Your task to perform on an android device: turn on sleep mode Image 0: 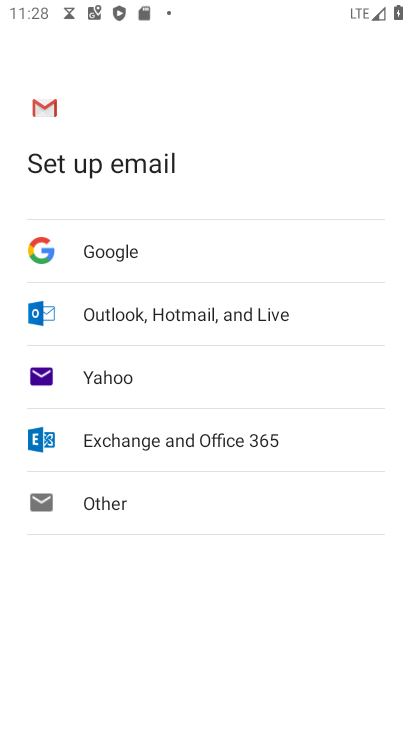
Step 0: press home button
Your task to perform on an android device: turn on sleep mode Image 1: 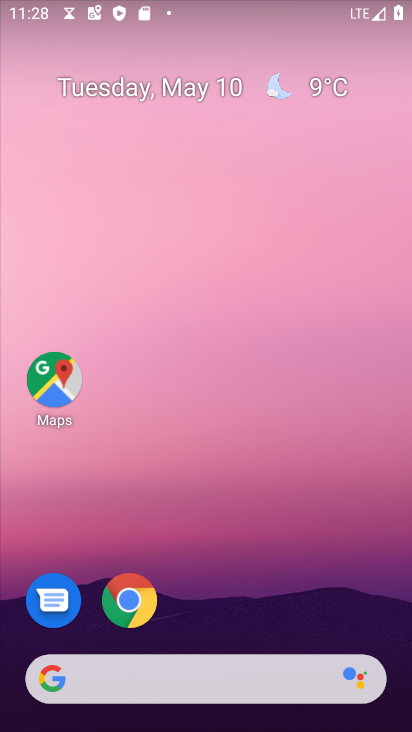
Step 1: drag from (231, 291) to (203, 106)
Your task to perform on an android device: turn on sleep mode Image 2: 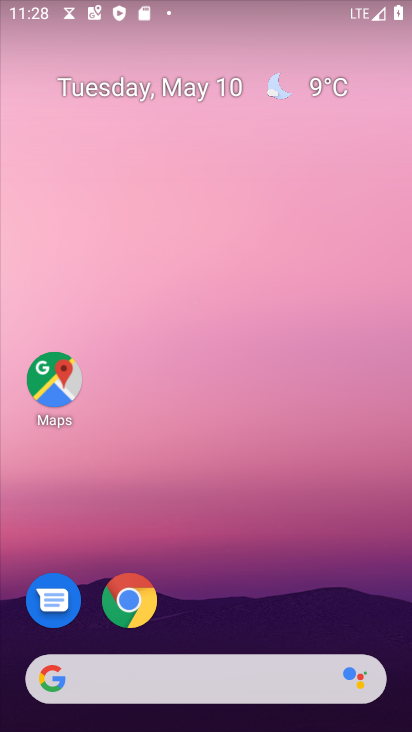
Step 2: drag from (261, 495) to (221, 36)
Your task to perform on an android device: turn on sleep mode Image 3: 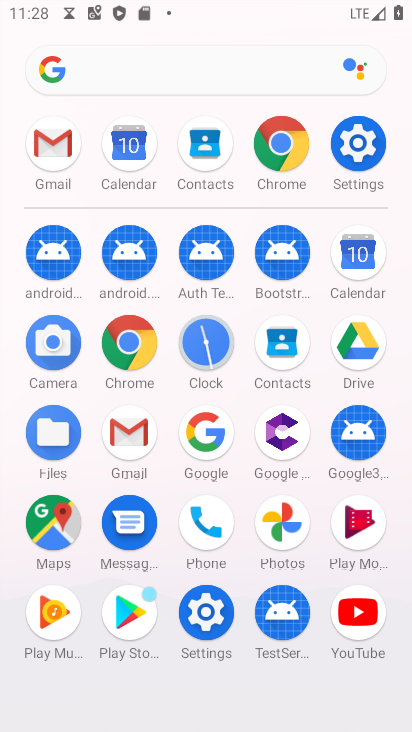
Step 3: click (359, 142)
Your task to perform on an android device: turn on sleep mode Image 4: 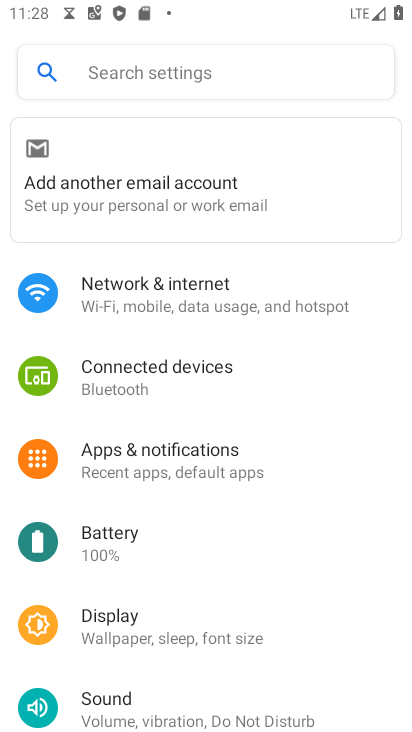
Step 4: click (191, 630)
Your task to perform on an android device: turn on sleep mode Image 5: 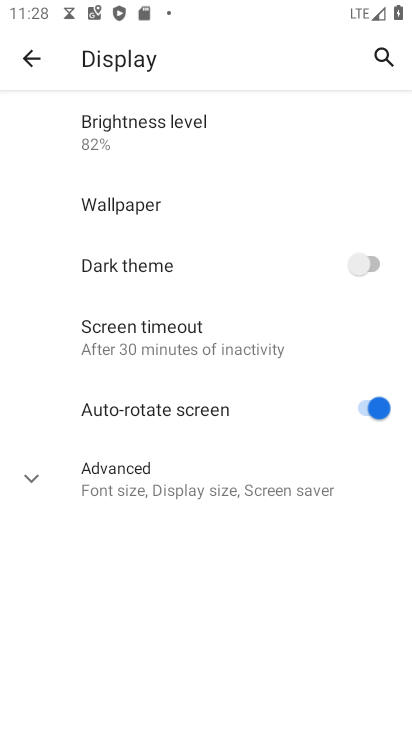
Step 5: task complete